Your task to perform on an android device: change the clock display to analog Image 0: 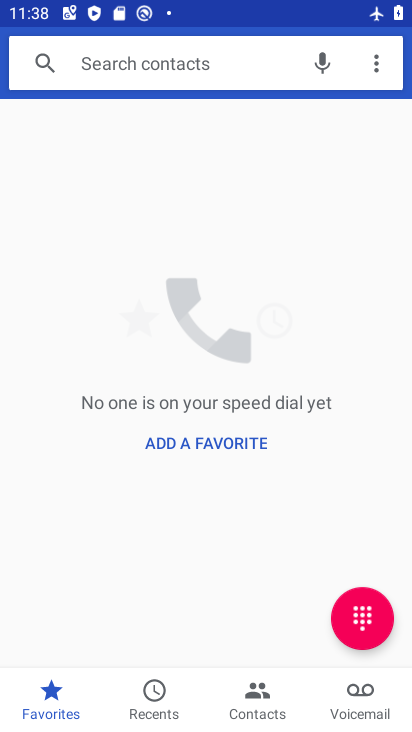
Step 0: press home button
Your task to perform on an android device: change the clock display to analog Image 1: 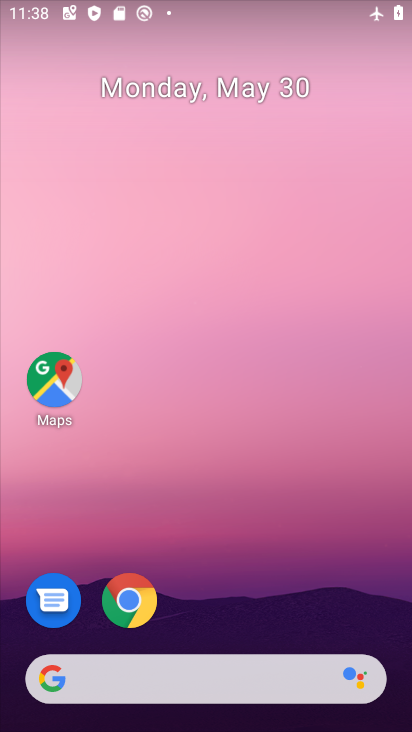
Step 1: drag from (224, 726) to (214, 36)
Your task to perform on an android device: change the clock display to analog Image 2: 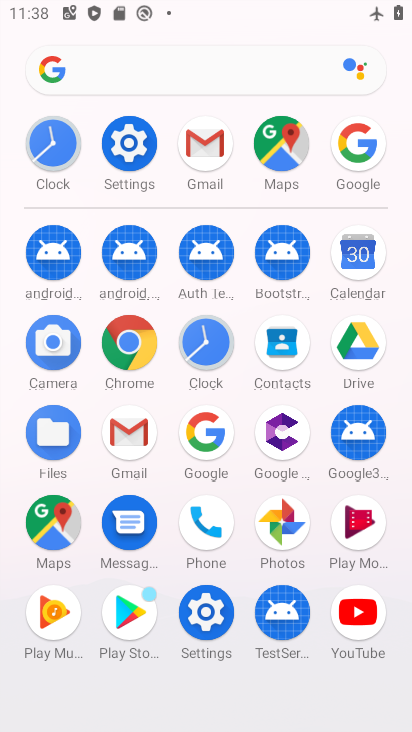
Step 2: click (203, 358)
Your task to perform on an android device: change the clock display to analog Image 3: 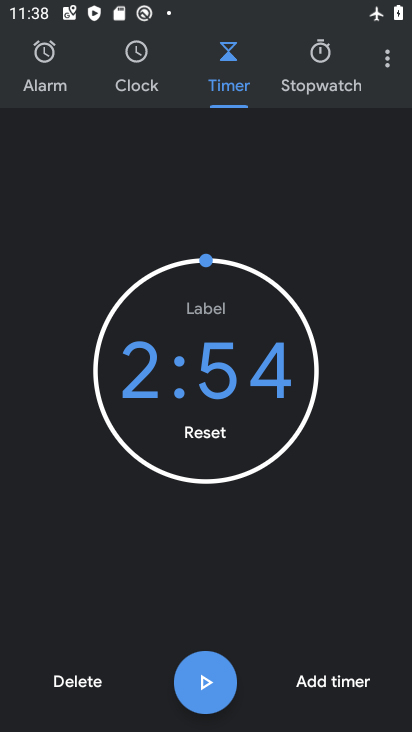
Step 3: click (387, 67)
Your task to perform on an android device: change the clock display to analog Image 4: 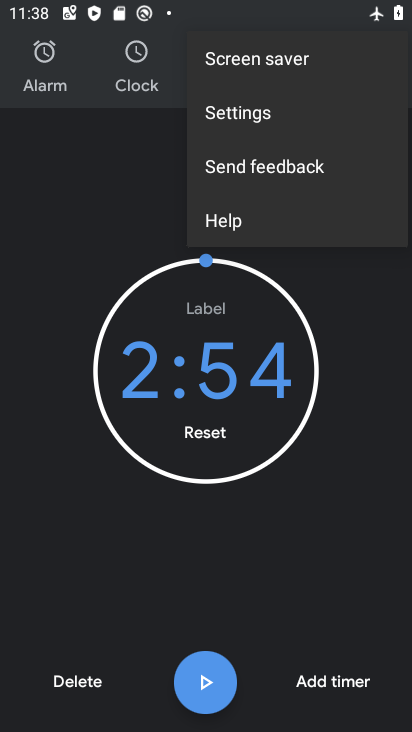
Step 4: click (253, 116)
Your task to perform on an android device: change the clock display to analog Image 5: 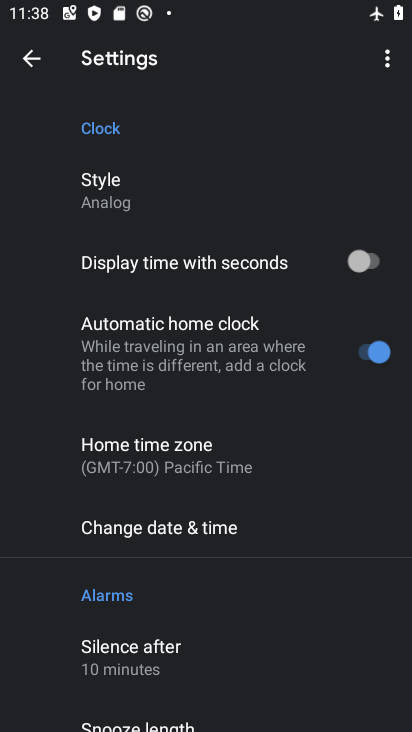
Step 5: task complete